Your task to perform on an android device: Open Android settings Image 0: 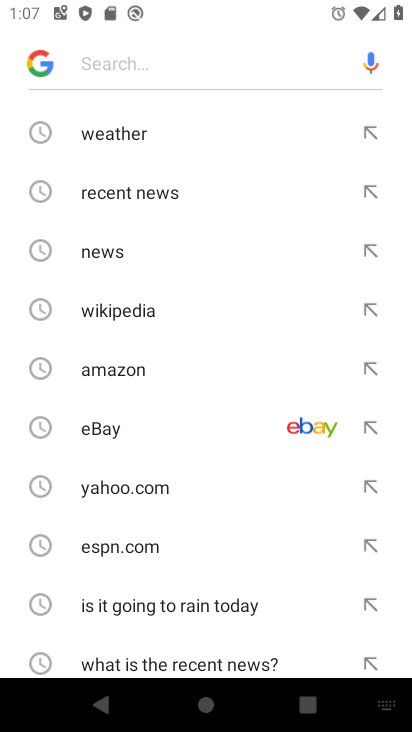
Step 0: press home button
Your task to perform on an android device: Open Android settings Image 1: 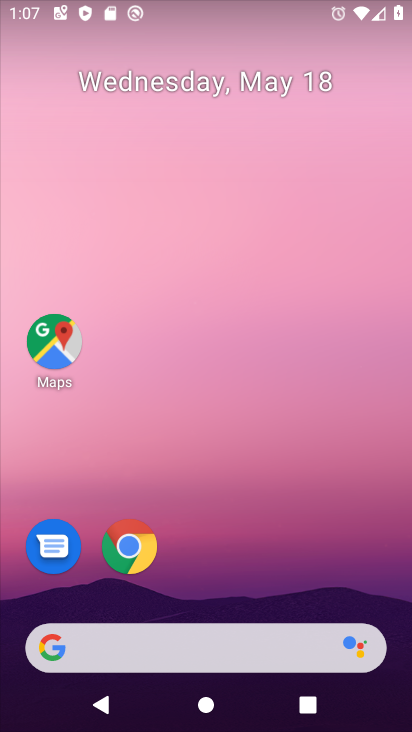
Step 1: drag from (223, 606) to (284, 45)
Your task to perform on an android device: Open Android settings Image 2: 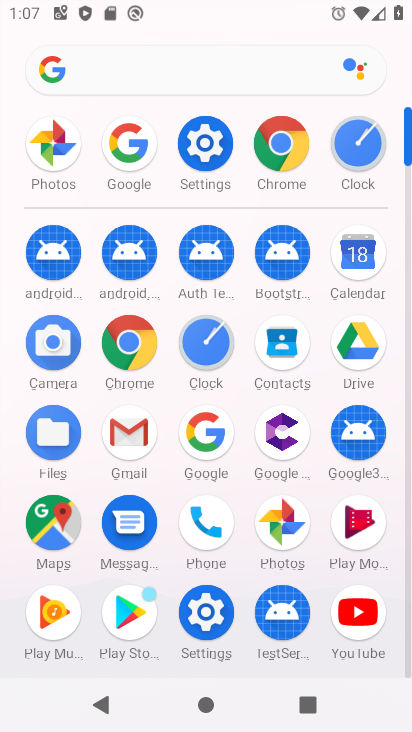
Step 2: click (216, 162)
Your task to perform on an android device: Open Android settings Image 3: 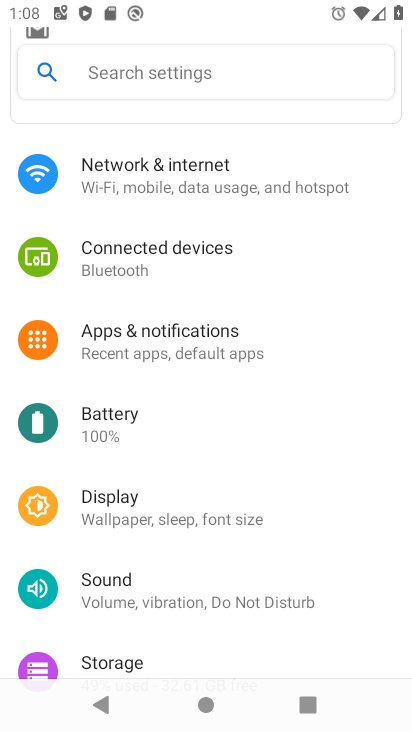
Step 3: drag from (163, 526) to (259, 7)
Your task to perform on an android device: Open Android settings Image 4: 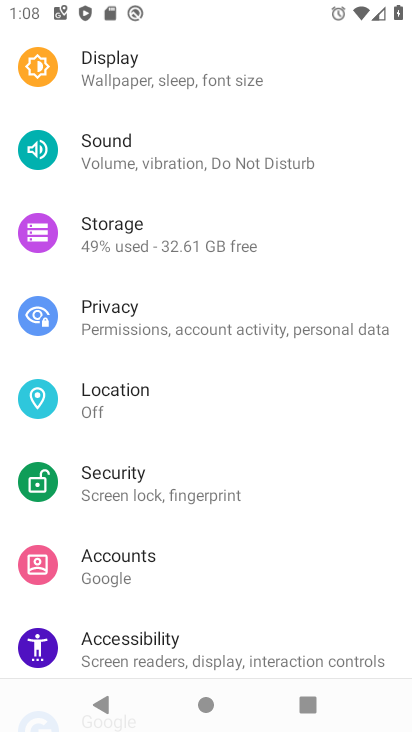
Step 4: drag from (185, 534) to (297, 0)
Your task to perform on an android device: Open Android settings Image 5: 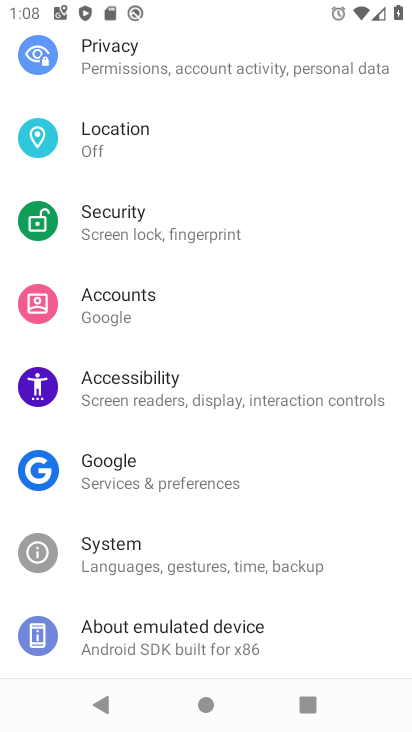
Step 5: click (218, 649)
Your task to perform on an android device: Open Android settings Image 6: 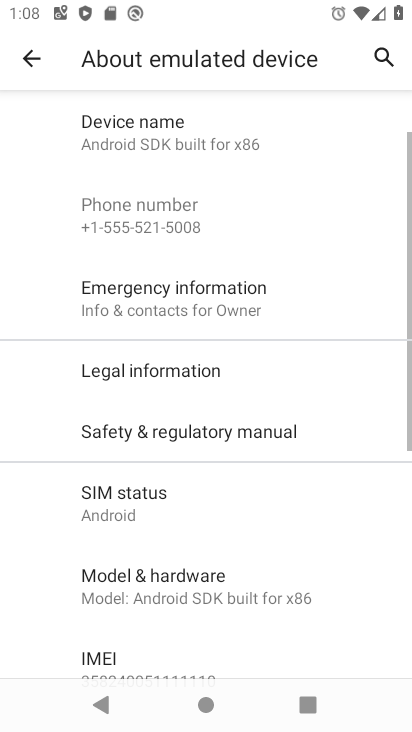
Step 6: task complete